Your task to perform on an android device: toggle notification dots Image 0: 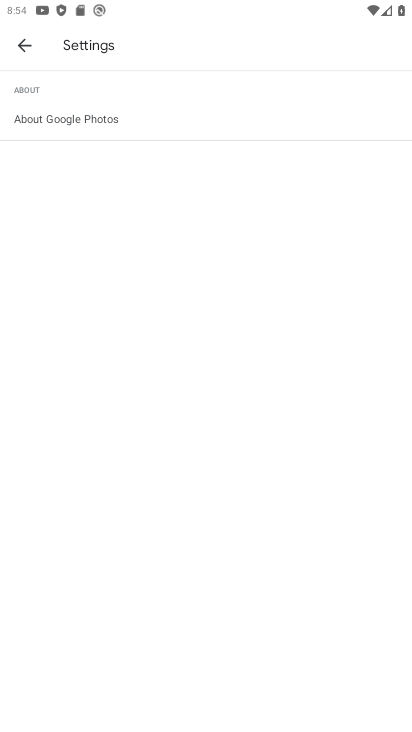
Step 0: press home button
Your task to perform on an android device: toggle notification dots Image 1: 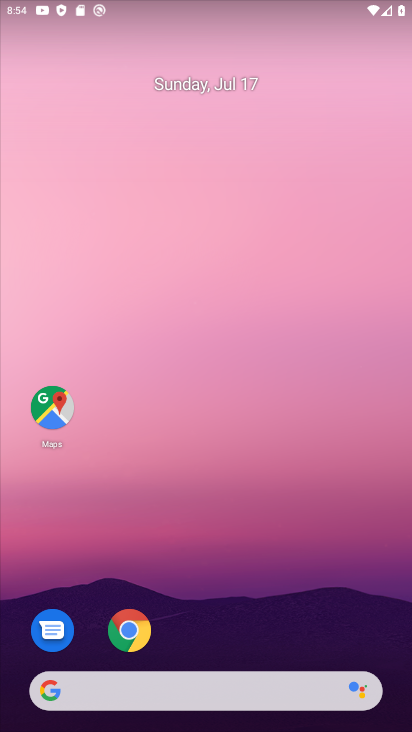
Step 1: drag from (273, 612) to (329, 48)
Your task to perform on an android device: toggle notification dots Image 2: 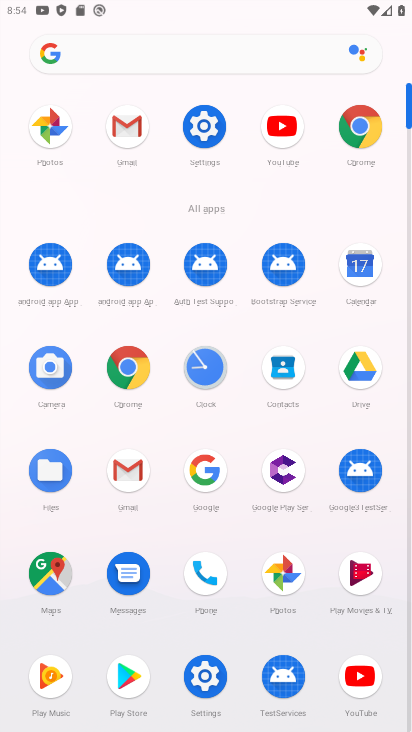
Step 2: click (210, 680)
Your task to perform on an android device: toggle notification dots Image 3: 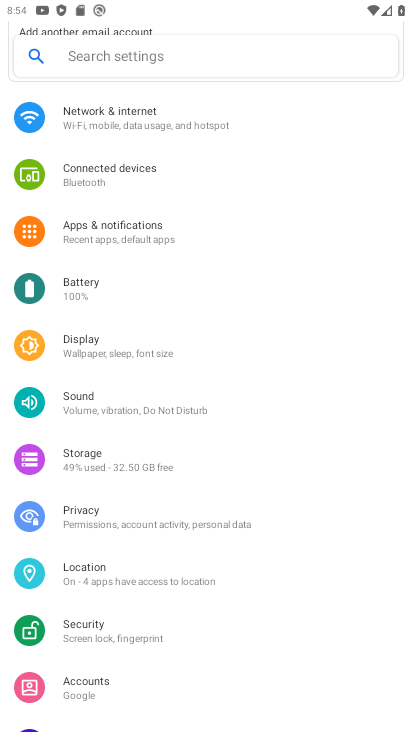
Step 3: click (129, 226)
Your task to perform on an android device: toggle notification dots Image 4: 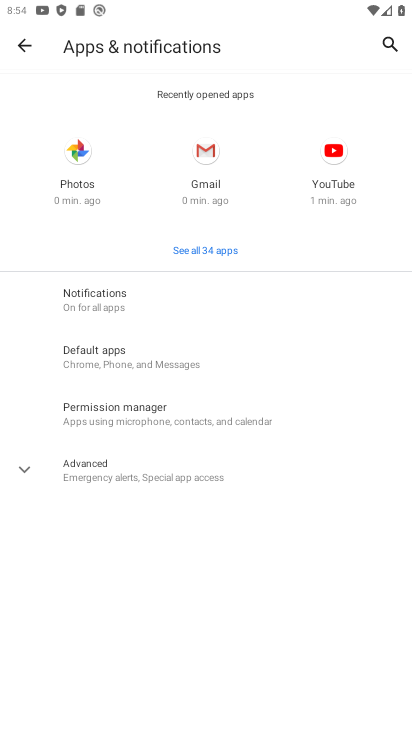
Step 4: click (184, 312)
Your task to perform on an android device: toggle notification dots Image 5: 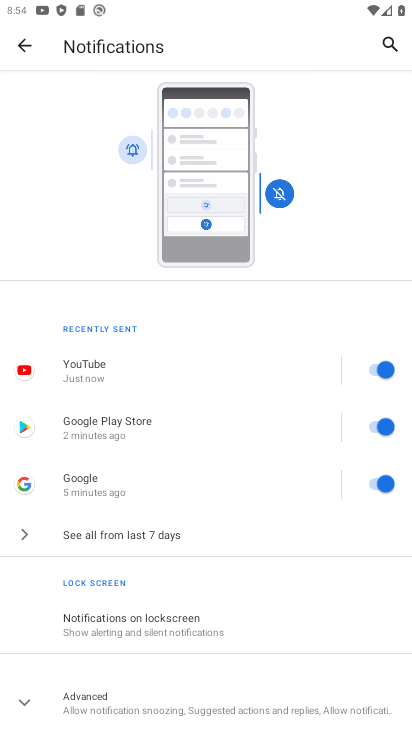
Step 5: click (147, 697)
Your task to perform on an android device: toggle notification dots Image 6: 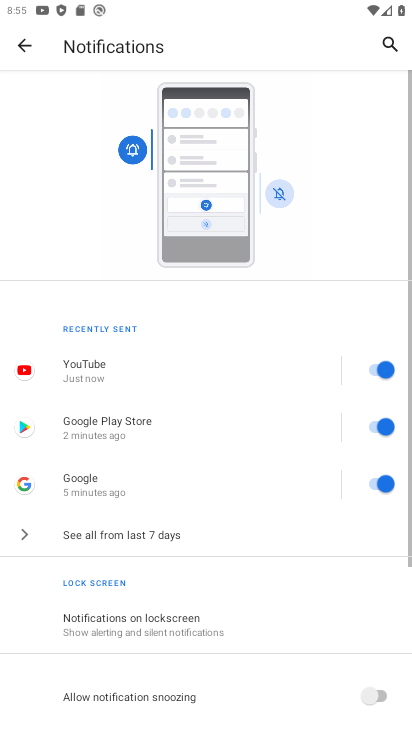
Step 6: drag from (156, 672) to (244, 233)
Your task to perform on an android device: toggle notification dots Image 7: 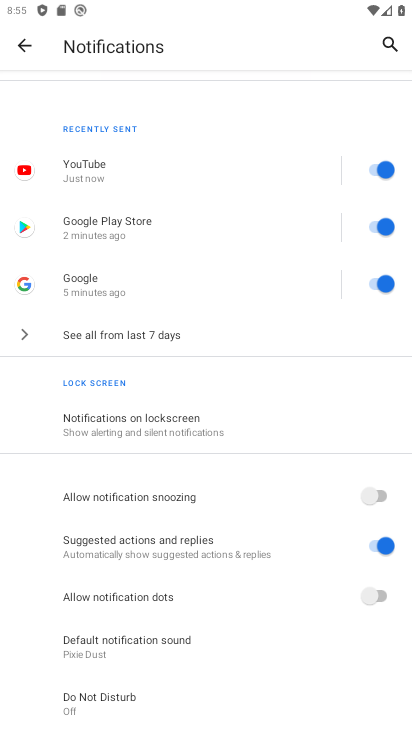
Step 7: click (385, 592)
Your task to perform on an android device: toggle notification dots Image 8: 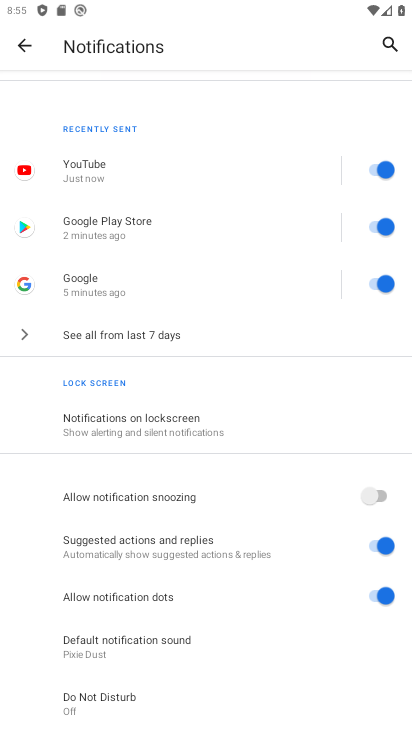
Step 8: task complete